Your task to perform on an android device: read, delete, or share a saved page in the chrome app Image 0: 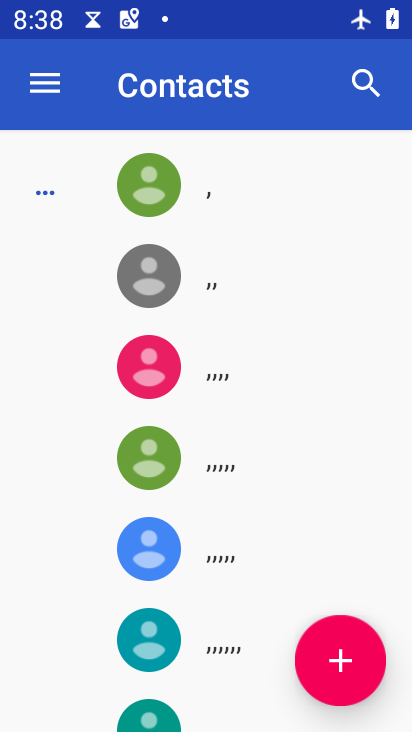
Step 0: press home button
Your task to perform on an android device: read, delete, or share a saved page in the chrome app Image 1: 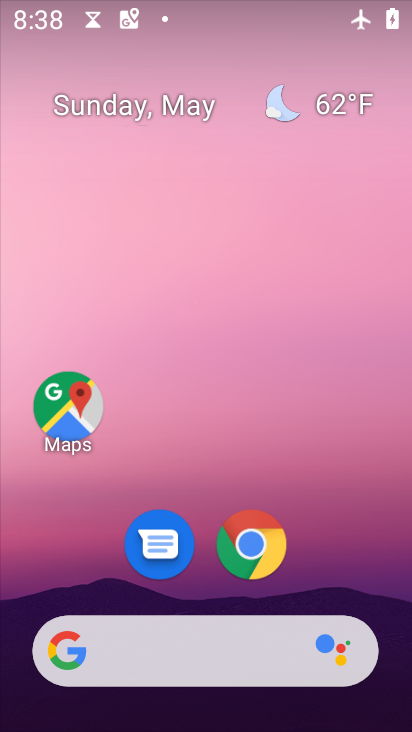
Step 1: drag from (303, 573) to (167, 110)
Your task to perform on an android device: read, delete, or share a saved page in the chrome app Image 2: 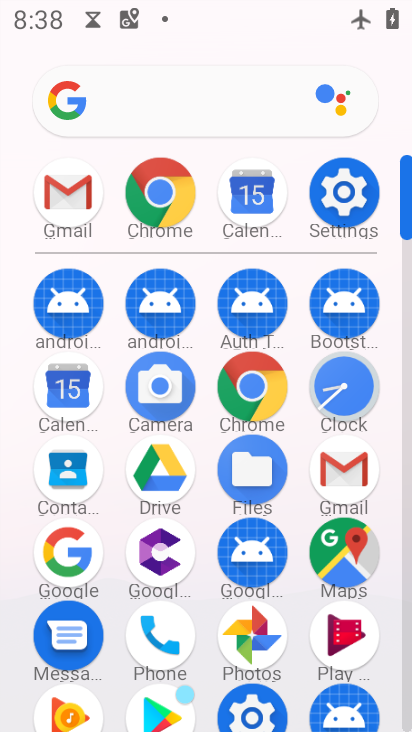
Step 2: click (167, 205)
Your task to perform on an android device: read, delete, or share a saved page in the chrome app Image 3: 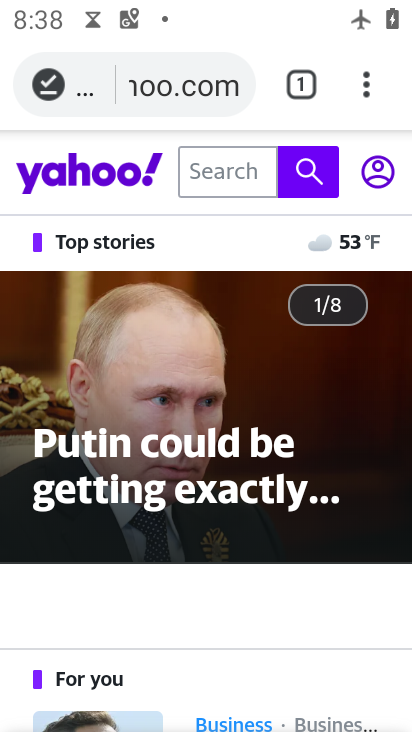
Step 3: click (364, 89)
Your task to perform on an android device: read, delete, or share a saved page in the chrome app Image 4: 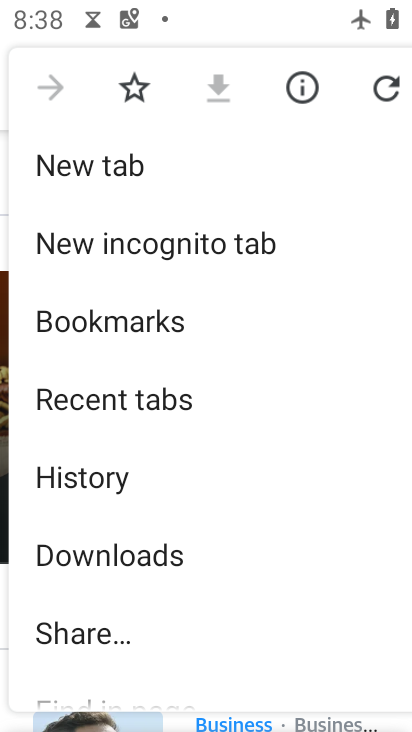
Step 4: task complete